Your task to perform on an android device: Add "razer deathadder" to the cart on bestbuy Image 0: 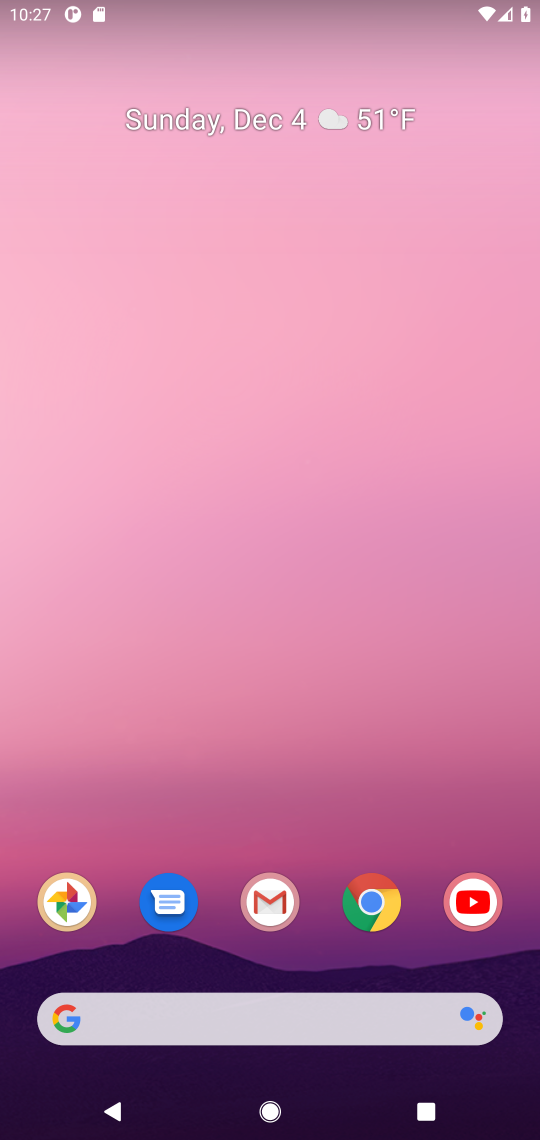
Step 0: click (358, 899)
Your task to perform on an android device: Add "razer deathadder" to the cart on bestbuy Image 1: 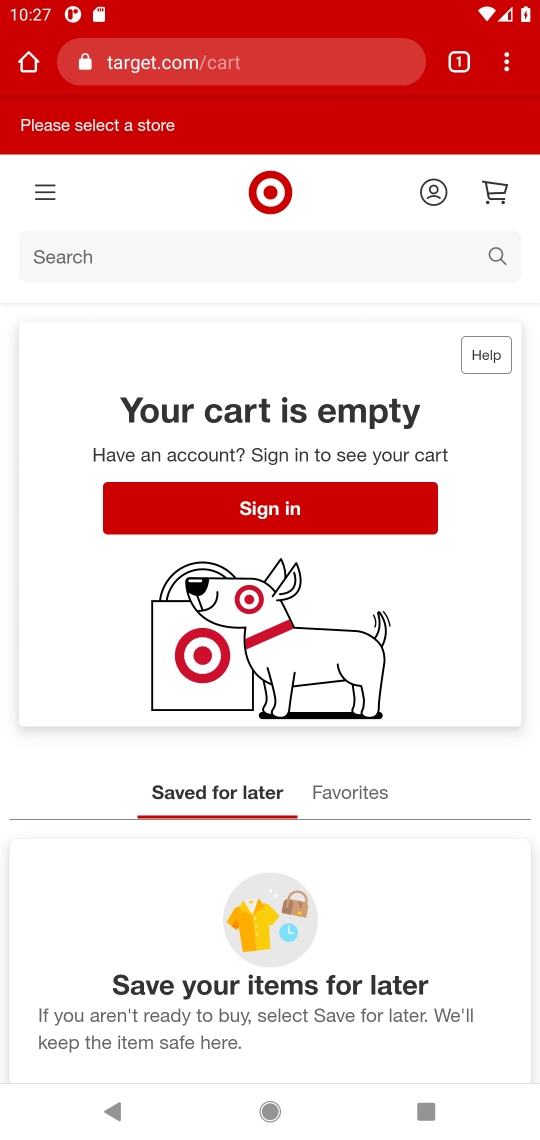
Step 1: click (239, 60)
Your task to perform on an android device: Add "razer deathadder" to the cart on bestbuy Image 2: 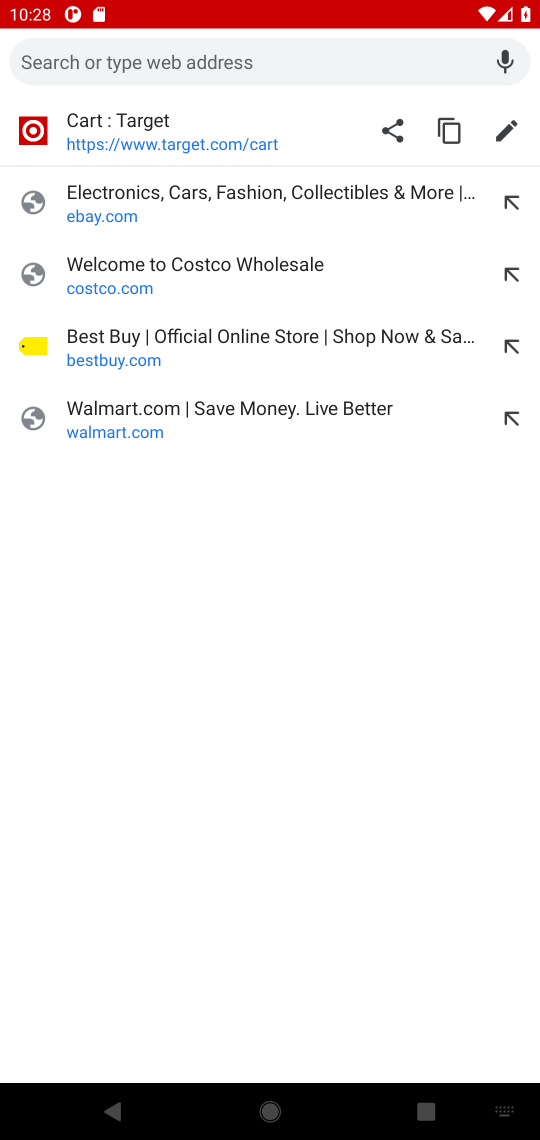
Step 2: click (136, 361)
Your task to perform on an android device: Add "razer deathadder" to the cart on bestbuy Image 3: 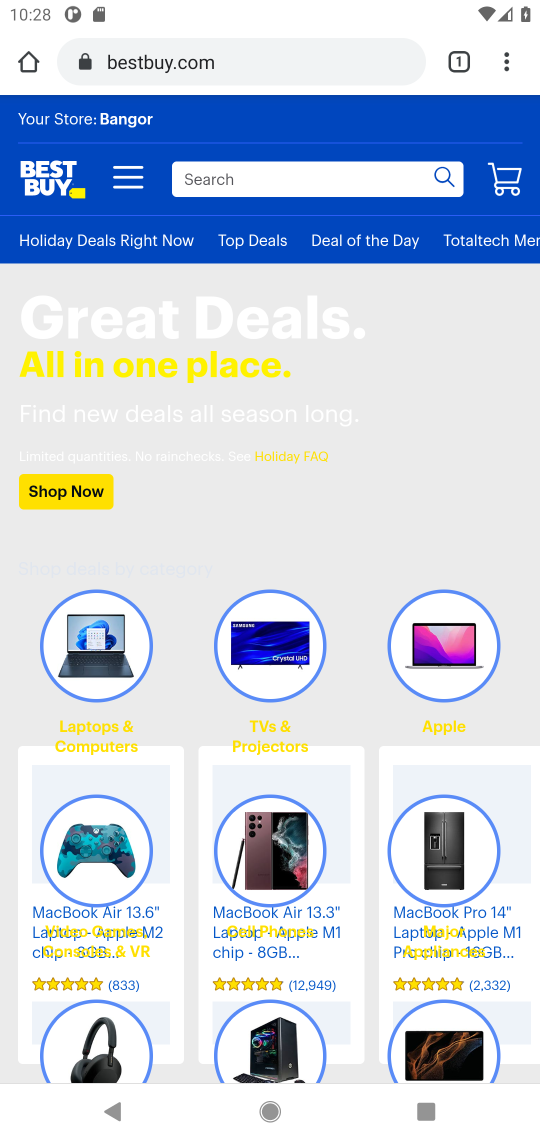
Step 3: click (317, 184)
Your task to perform on an android device: Add "razer deathadder" to the cart on bestbuy Image 4: 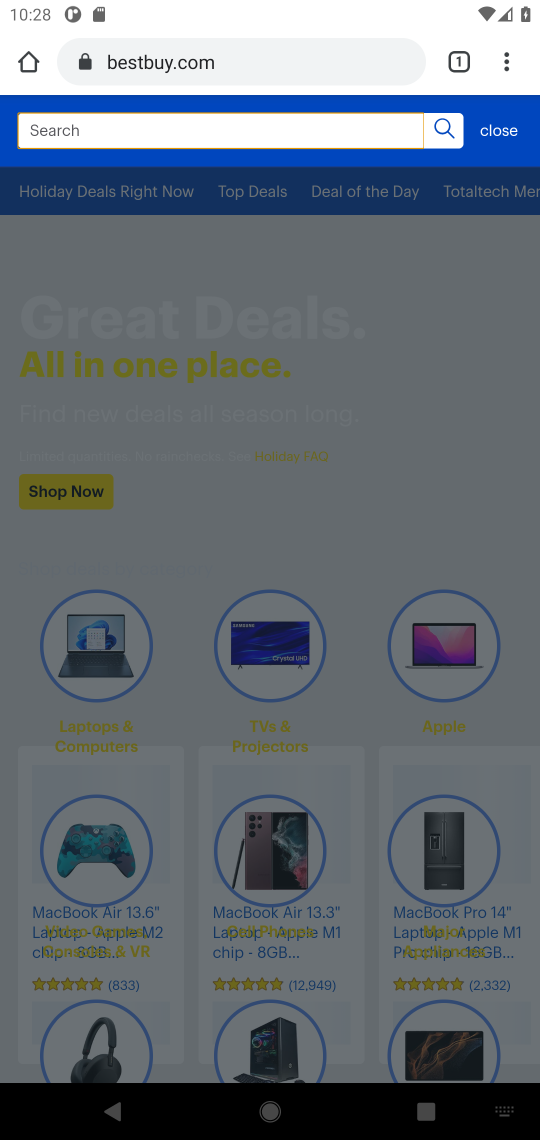
Step 4: type "razer deathadder"
Your task to perform on an android device: Add "razer deathadder" to the cart on bestbuy Image 5: 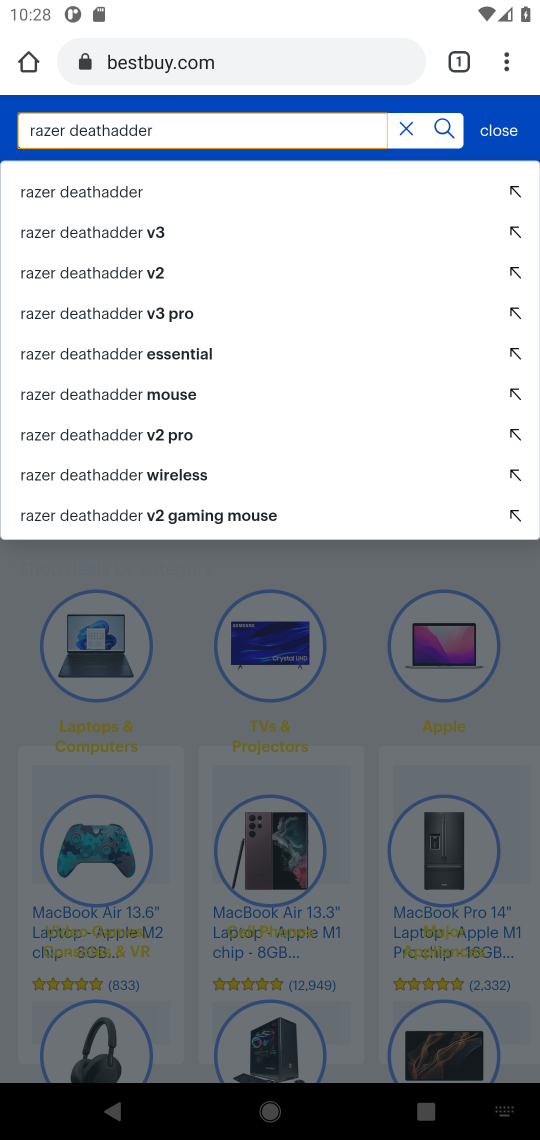
Step 5: click (449, 139)
Your task to perform on an android device: Add "razer deathadder" to the cart on bestbuy Image 6: 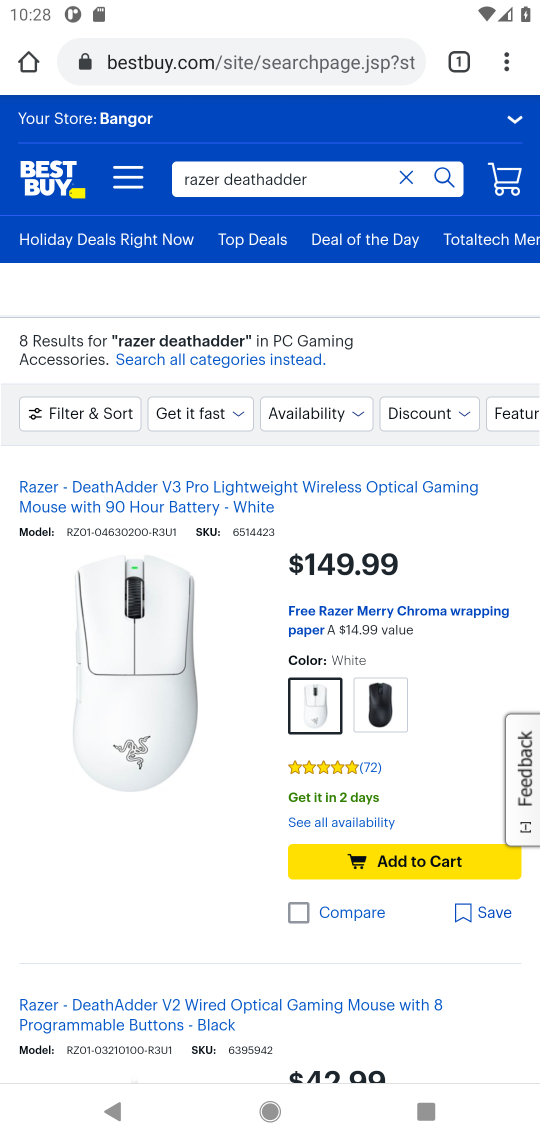
Step 6: click (382, 853)
Your task to perform on an android device: Add "razer deathadder" to the cart on bestbuy Image 7: 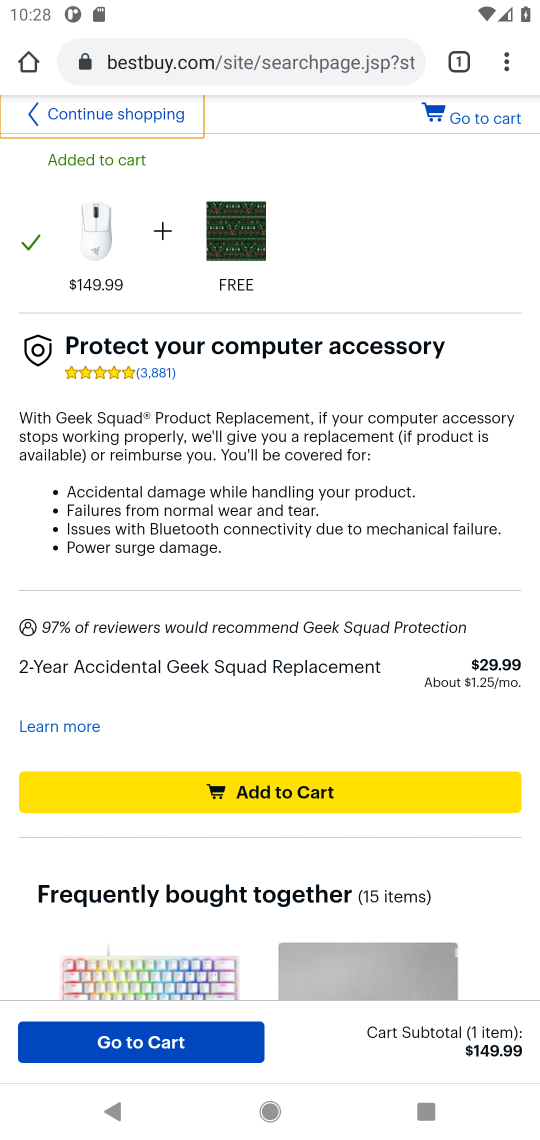
Step 7: task complete